Your task to perform on an android device: turn on sleep mode Image 0: 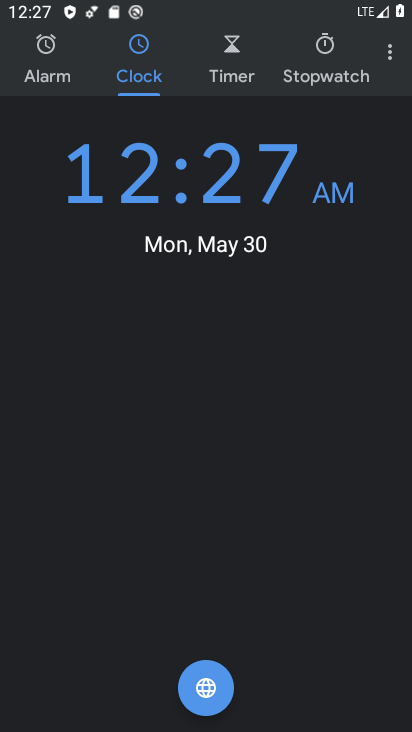
Step 0: press back button
Your task to perform on an android device: turn on sleep mode Image 1: 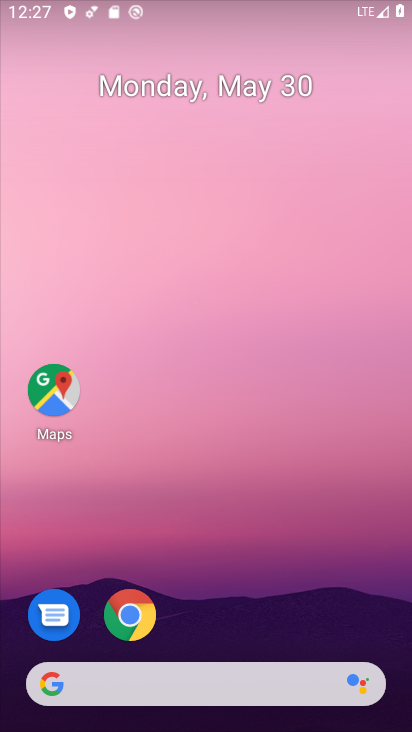
Step 1: drag from (250, 541) to (237, 0)
Your task to perform on an android device: turn on sleep mode Image 2: 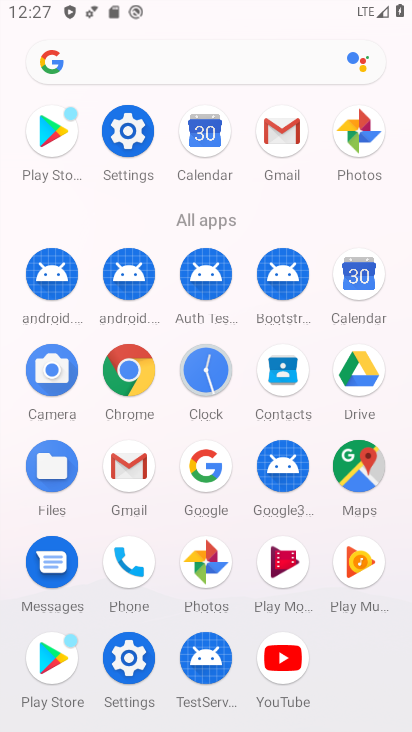
Step 2: click (131, 234)
Your task to perform on an android device: turn on sleep mode Image 3: 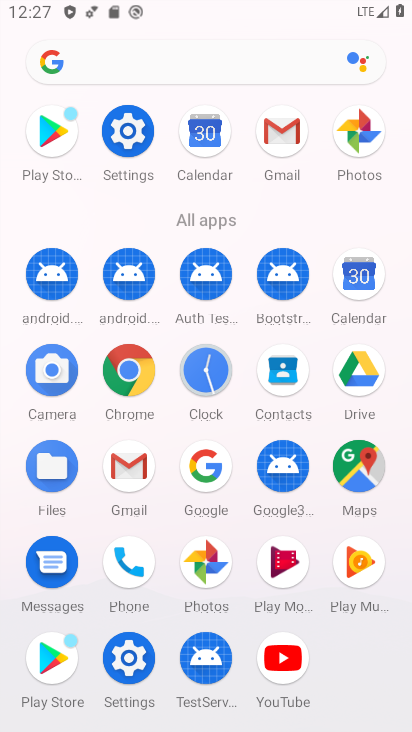
Step 3: click (129, 145)
Your task to perform on an android device: turn on sleep mode Image 4: 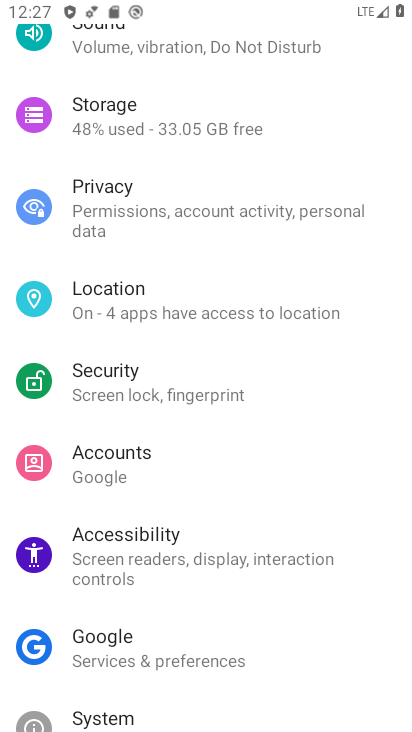
Step 4: drag from (269, 187) to (207, 600)
Your task to perform on an android device: turn on sleep mode Image 5: 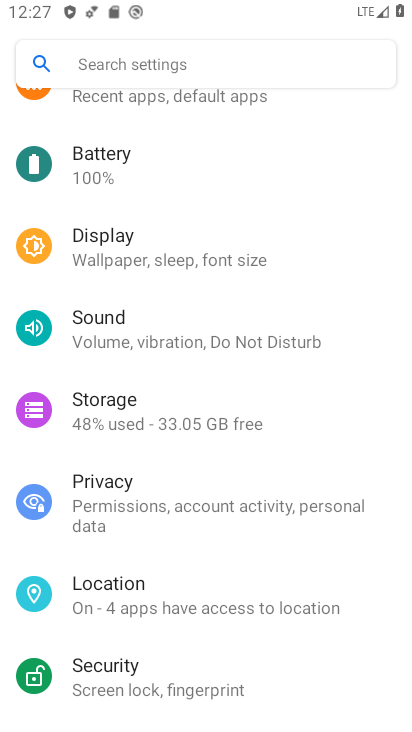
Step 5: click (115, 53)
Your task to perform on an android device: turn on sleep mode Image 6: 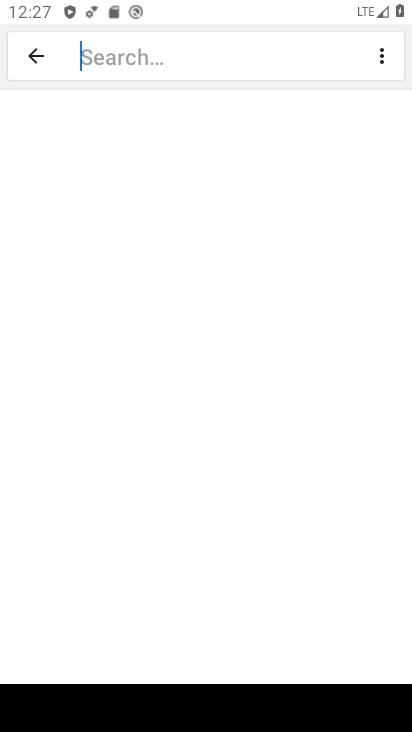
Step 6: type ""
Your task to perform on an android device: turn on sleep mode Image 7: 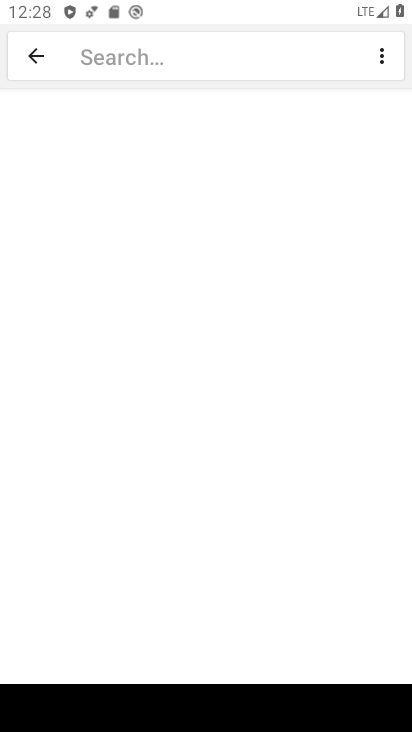
Step 7: type "sleep mode"
Your task to perform on an android device: turn on sleep mode Image 8: 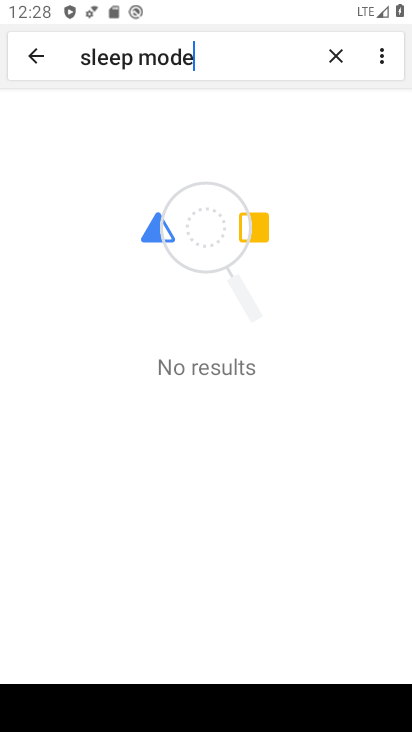
Step 8: task complete